Your task to perform on an android device: turn pop-ups on in chrome Image 0: 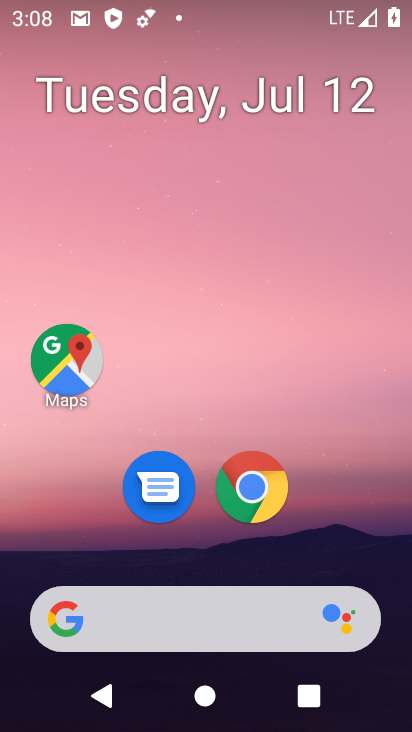
Step 0: drag from (237, 486) to (280, 4)
Your task to perform on an android device: turn pop-ups on in chrome Image 1: 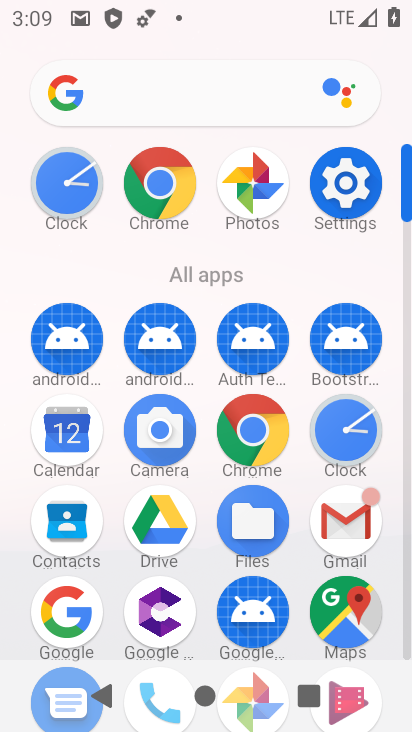
Step 1: click (335, 197)
Your task to perform on an android device: turn pop-ups on in chrome Image 2: 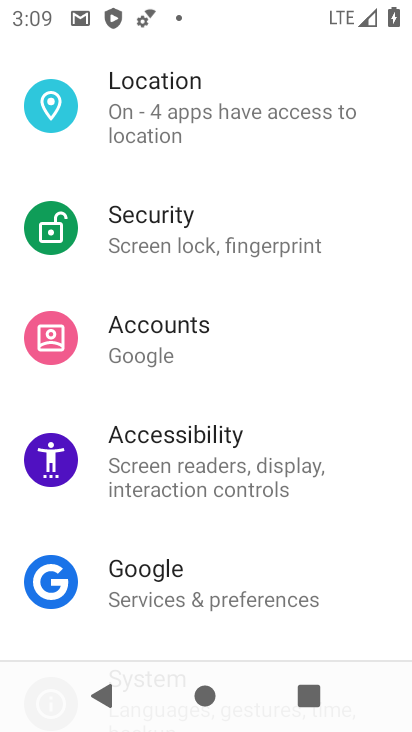
Step 2: drag from (225, 228) to (137, 668)
Your task to perform on an android device: turn pop-ups on in chrome Image 3: 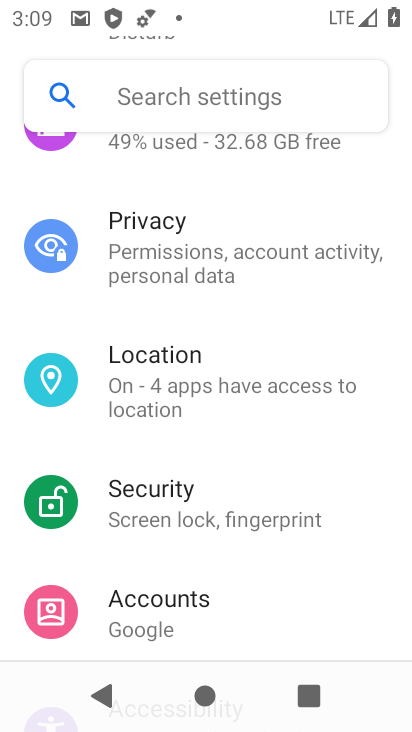
Step 3: drag from (178, 343) to (186, 610)
Your task to perform on an android device: turn pop-ups on in chrome Image 4: 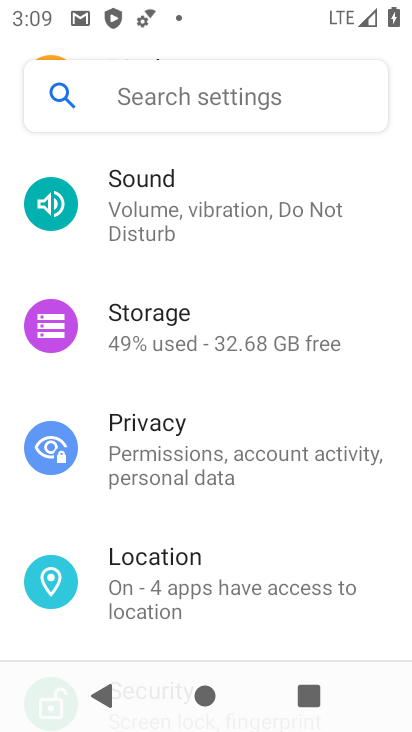
Step 4: drag from (211, 314) to (212, 403)
Your task to perform on an android device: turn pop-ups on in chrome Image 5: 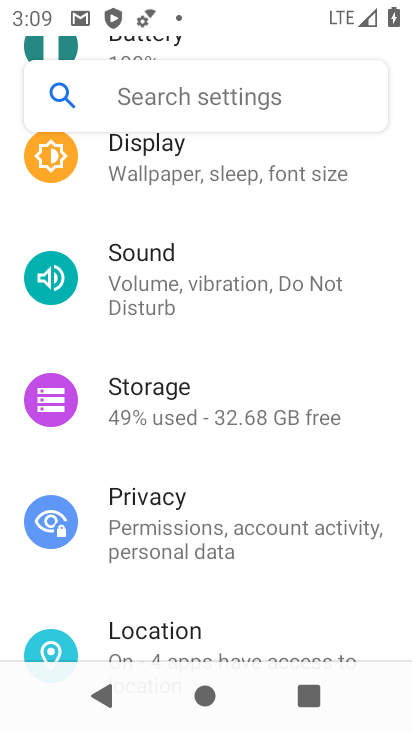
Step 5: press home button
Your task to perform on an android device: turn pop-ups on in chrome Image 6: 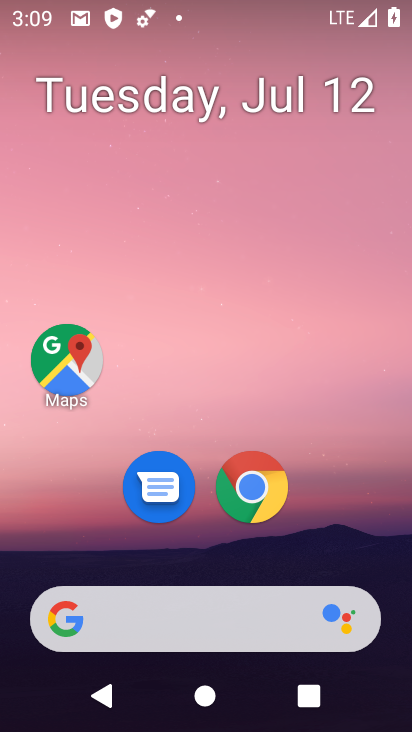
Step 6: drag from (264, 476) to (330, 16)
Your task to perform on an android device: turn pop-ups on in chrome Image 7: 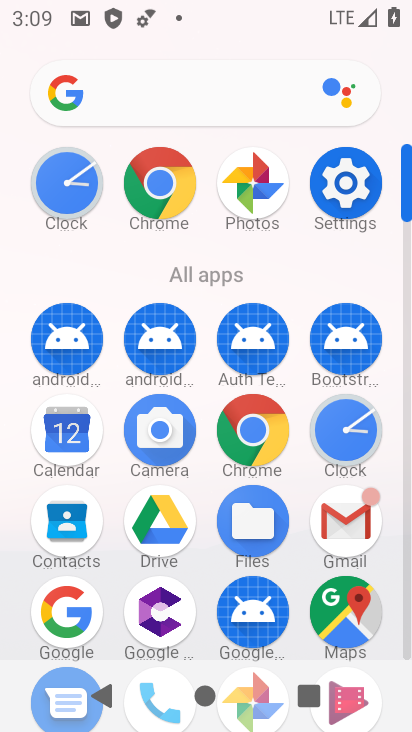
Step 7: click (263, 427)
Your task to perform on an android device: turn pop-ups on in chrome Image 8: 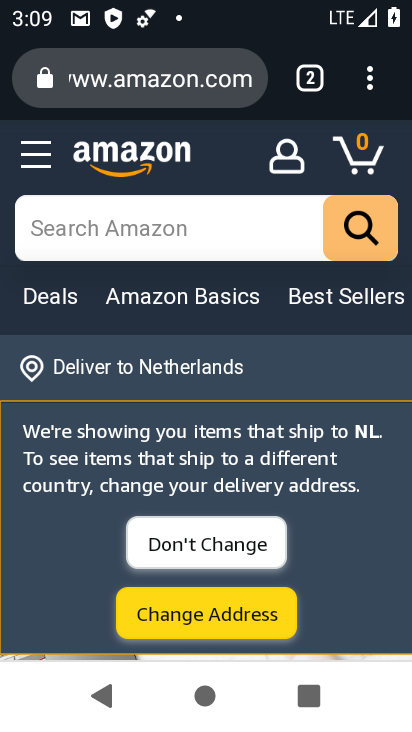
Step 8: click (374, 87)
Your task to perform on an android device: turn pop-ups on in chrome Image 9: 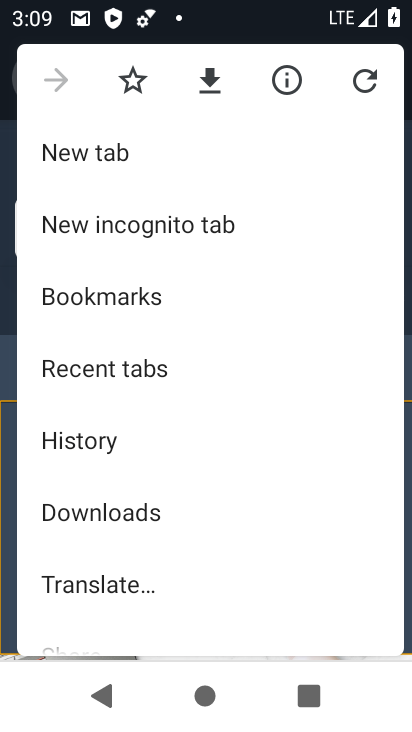
Step 9: drag from (102, 576) to (97, 470)
Your task to perform on an android device: turn pop-ups on in chrome Image 10: 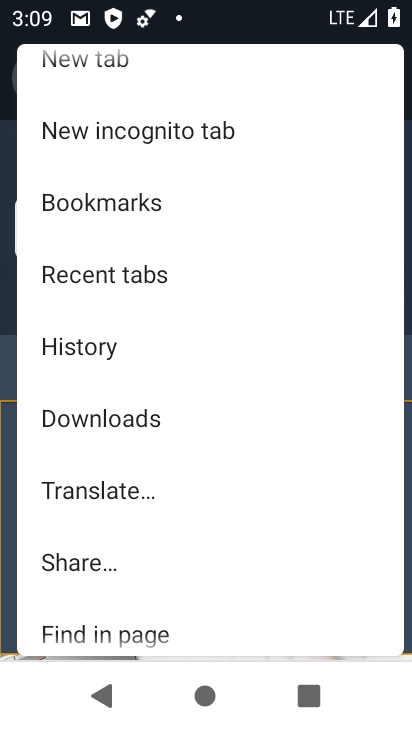
Step 10: drag from (114, 556) to (226, 178)
Your task to perform on an android device: turn pop-ups on in chrome Image 11: 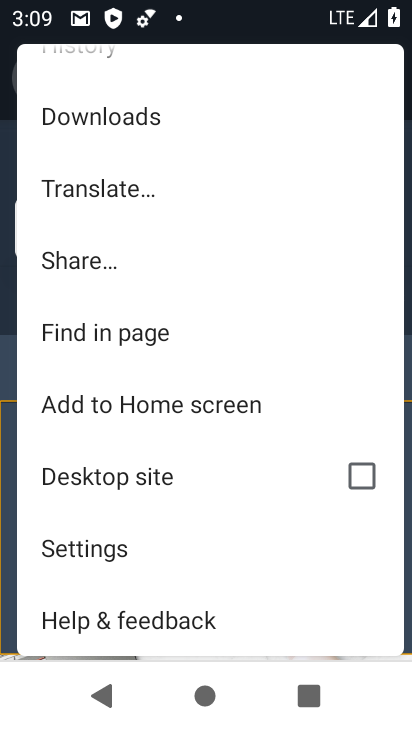
Step 11: click (120, 550)
Your task to perform on an android device: turn pop-ups on in chrome Image 12: 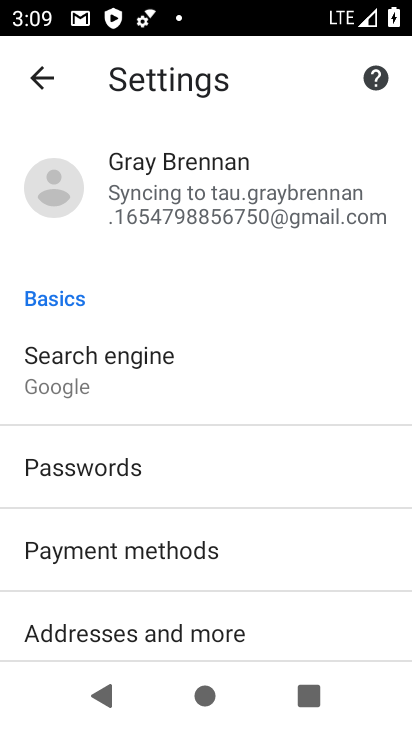
Step 12: drag from (143, 567) to (141, 169)
Your task to perform on an android device: turn pop-ups on in chrome Image 13: 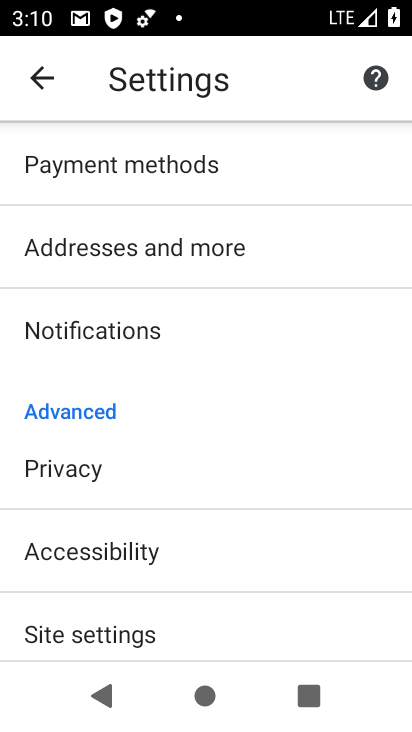
Step 13: drag from (151, 563) to (243, 137)
Your task to perform on an android device: turn pop-ups on in chrome Image 14: 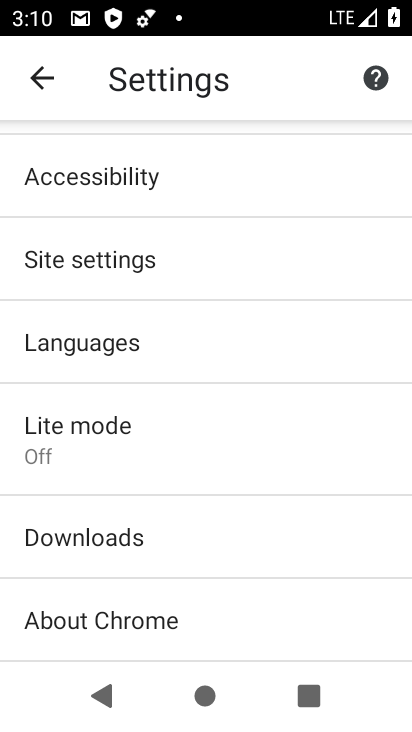
Step 14: click (125, 271)
Your task to perform on an android device: turn pop-ups on in chrome Image 15: 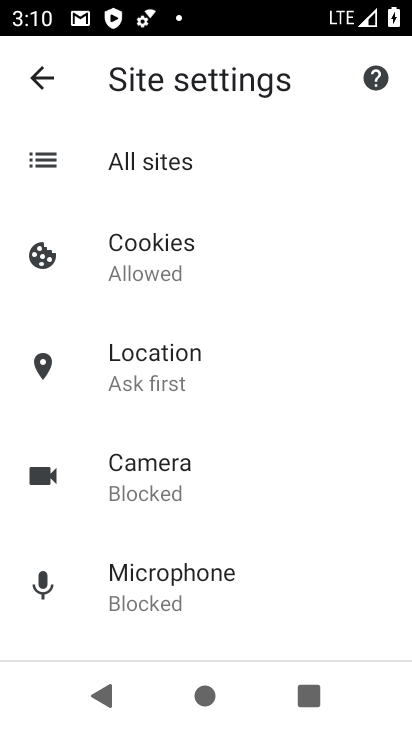
Step 15: drag from (192, 384) to (241, 103)
Your task to perform on an android device: turn pop-ups on in chrome Image 16: 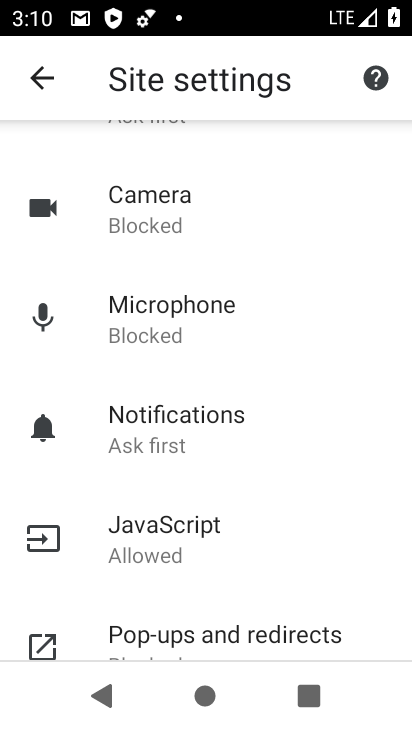
Step 16: drag from (171, 565) to (198, 246)
Your task to perform on an android device: turn pop-ups on in chrome Image 17: 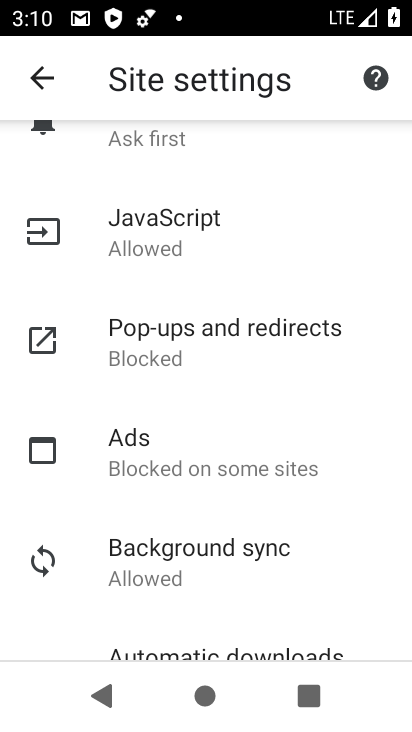
Step 17: click (256, 336)
Your task to perform on an android device: turn pop-ups on in chrome Image 18: 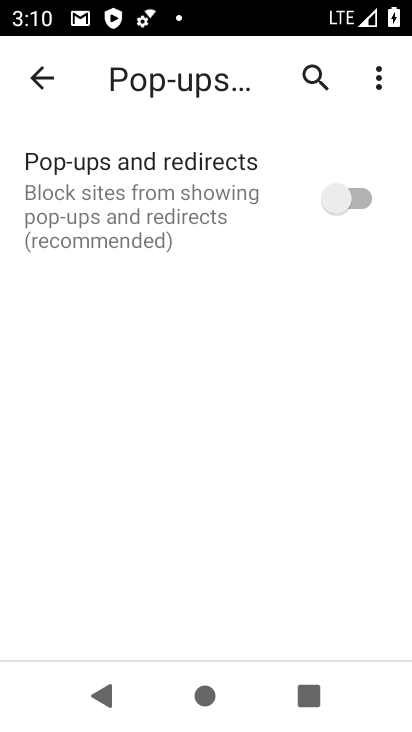
Step 18: click (330, 202)
Your task to perform on an android device: turn pop-ups on in chrome Image 19: 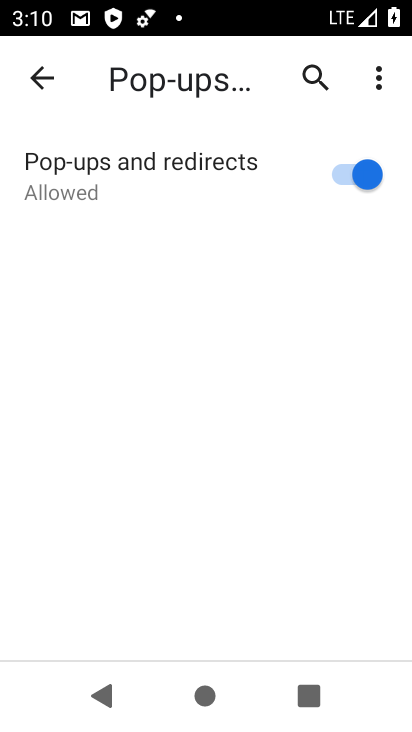
Step 19: task complete